Your task to perform on an android device: empty trash in the gmail app Image 0: 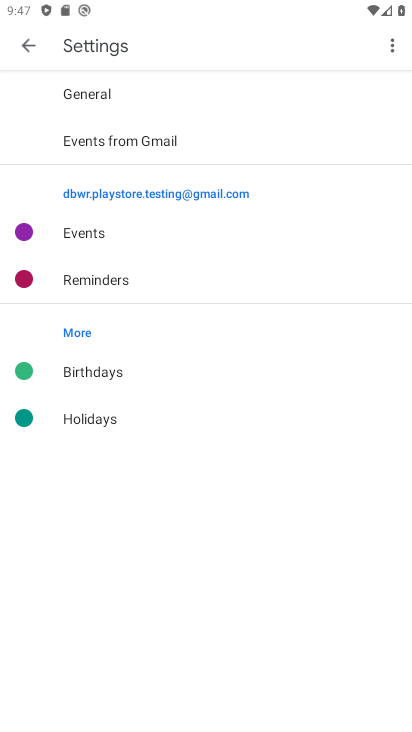
Step 0: press home button
Your task to perform on an android device: empty trash in the gmail app Image 1: 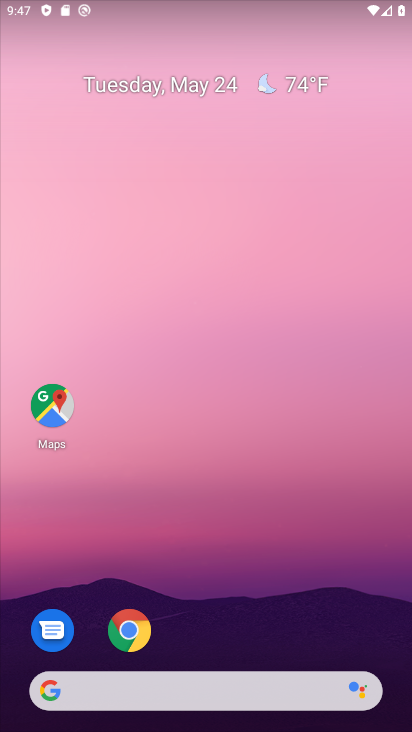
Step 1: drag from (279, 561) to (311, 93)
Your task to perform on an android device: empty trash in the gmail app Image 2: 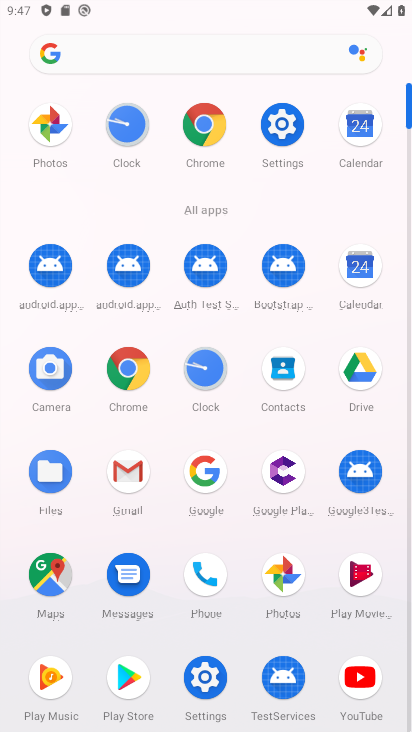
Step 2: click (120, 474)
Your task to perform on an android device: empty trash in the gmail app Image 3: 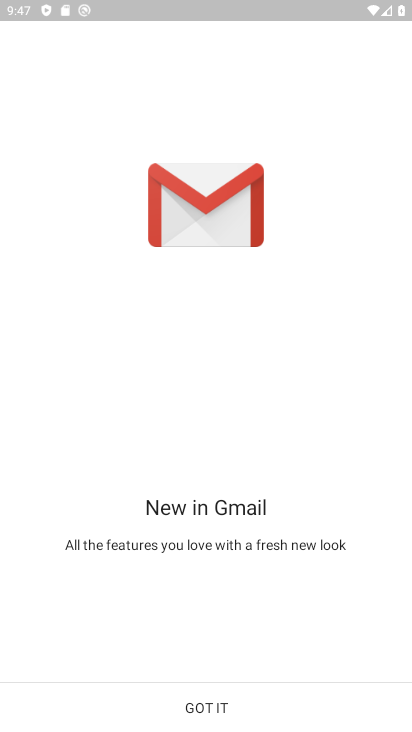
Step 3: click (120, 474)
Your task to perform on an android device: empty trash in the gmail app Image 4: 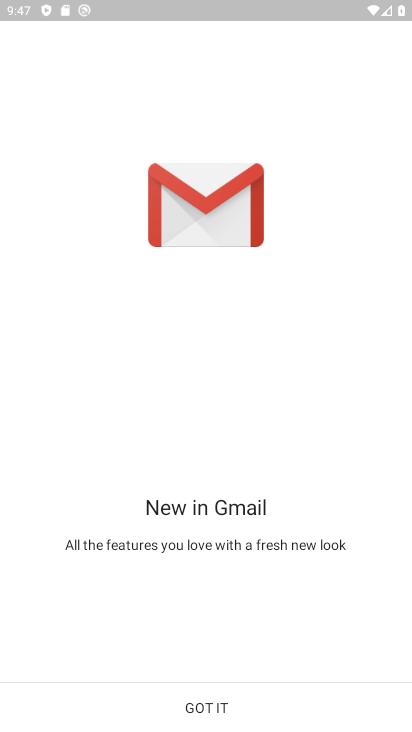
Step 4: click (275, 705)
Your task to perform on an android device: empty trash in the gmail app Image 5: 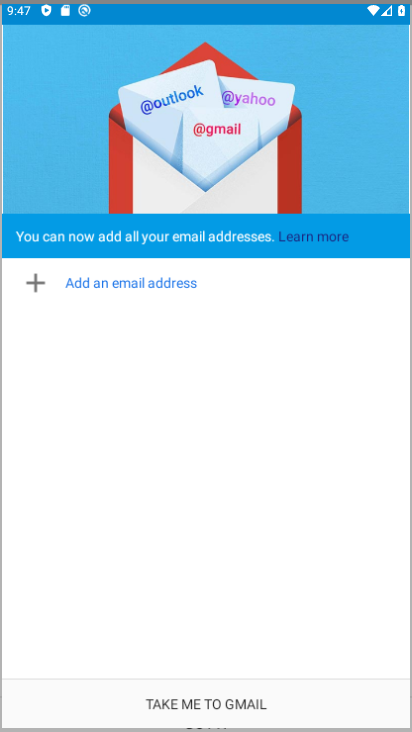
Step 5: click (275, 705)
Your task to perform on an android device: empty trash in the gmail app Image 6: 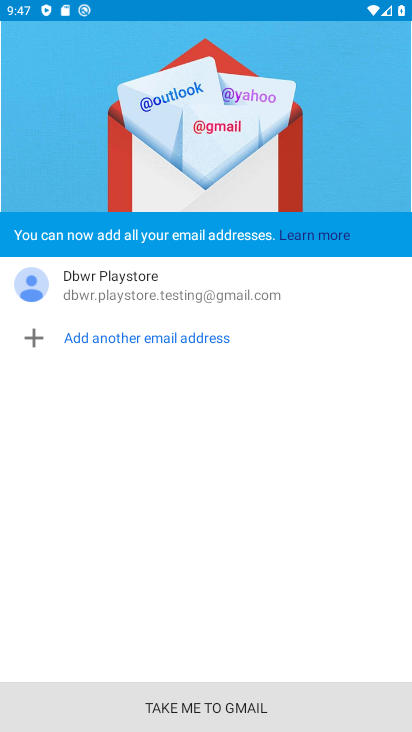
Step 6: click (275, 705)
Your task to perform on an android device: empty trash in the gmail app Image 7: 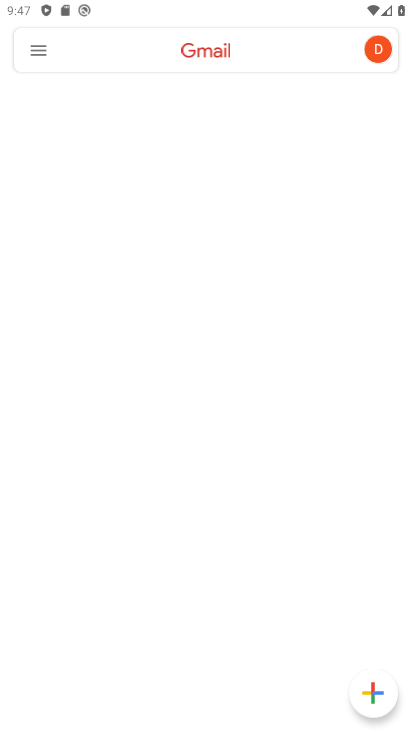
Step 7: drag from (275, 705) to (285, 605)
Your task to perform on an android device: empty trash in the gmail app Image 8: 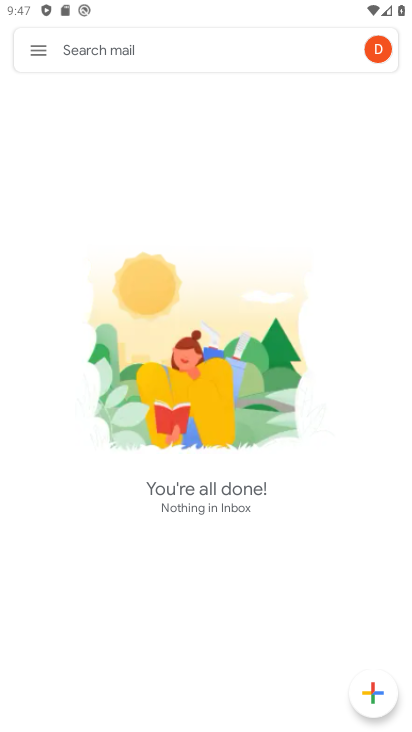
Step 8: click (31, 60)
Your task to perform on an android device: empty trash in the gmail app Image 9: 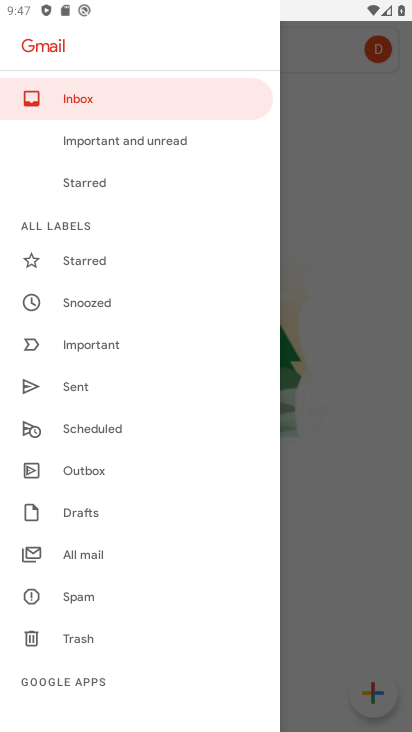
Step 9: click (79, 638)
Your task to perform on an android device: empty trash in the gmail app Image 10: 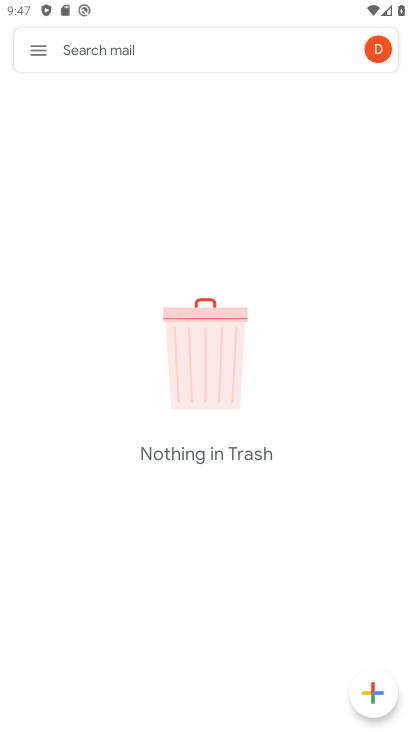
Step 10: task complete